Your task to perform on an android device: Go to network settings Image 0: 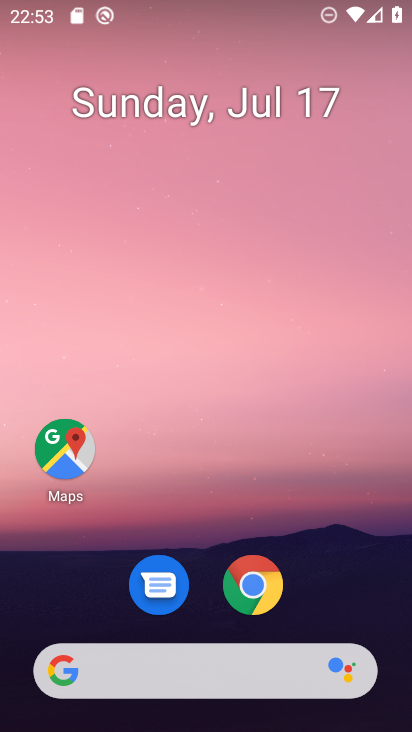
Step 0: press home button
Your task to perform on an android device: Go to network settings Image 1: 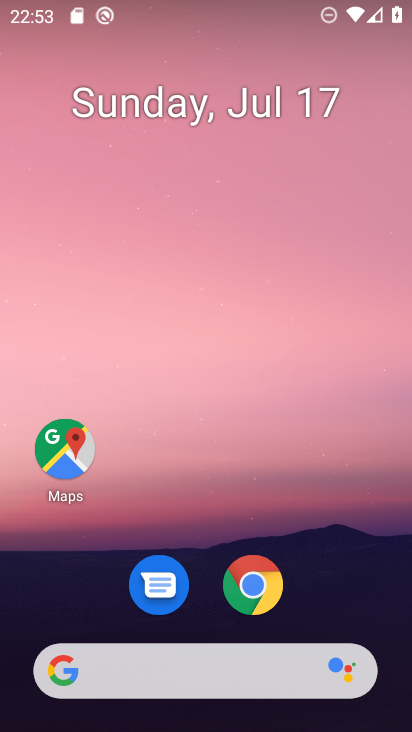
Step 1: drag from (206, 688) to (323, 174)
Your task to perform on an android device: Go to network settings Image 2: 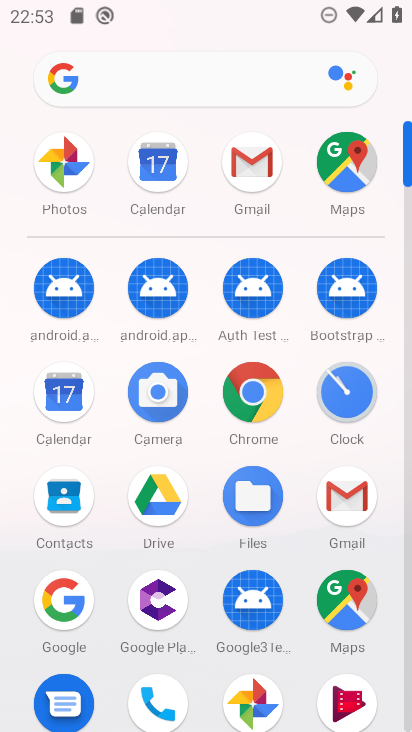
Step 2: drag from (203, 622) to (320, 215)
Your task to perform on an android device: Go to network settings Image 3: 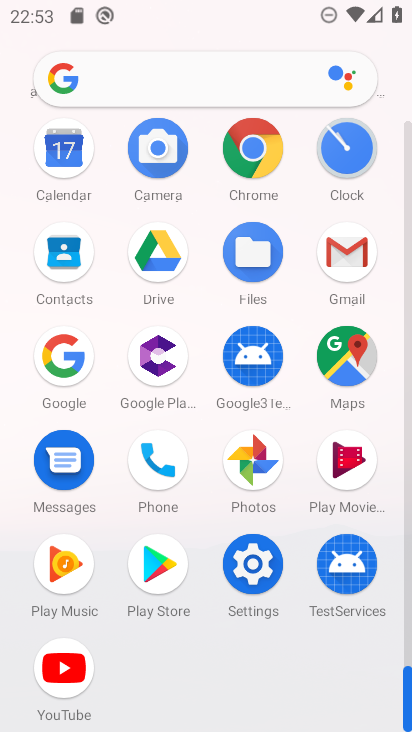
Step 3: click (247, 563)
Your task to perform on an android device: Go to network settings Image 4: 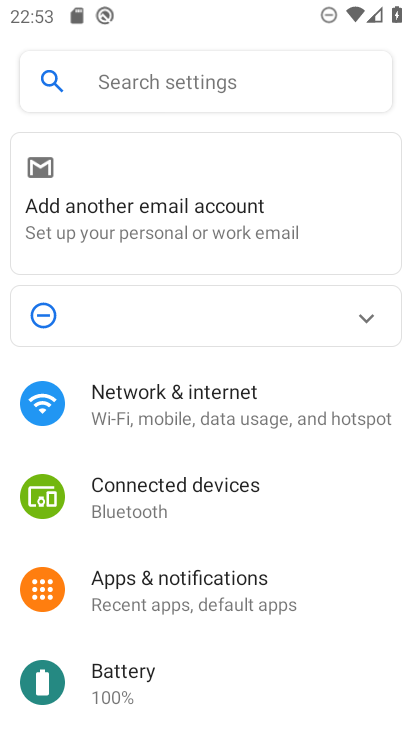
Step 4: click (217, 404)
Your task to perform on an android device: Go to network settings Image 5: 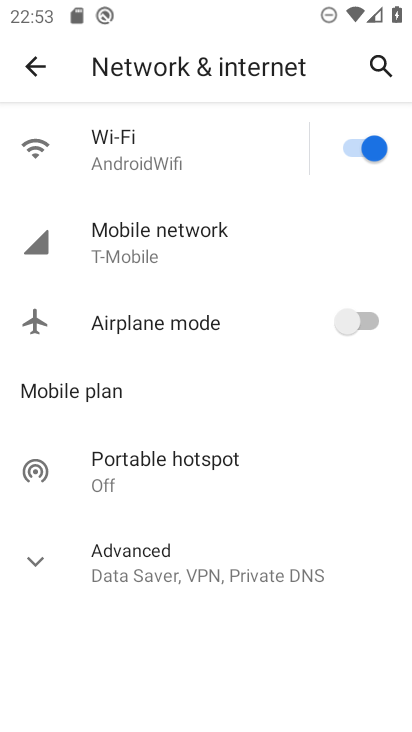
Step 5: click (172, 235)
Your task to perform on an android device: Go to network settings Image 6: 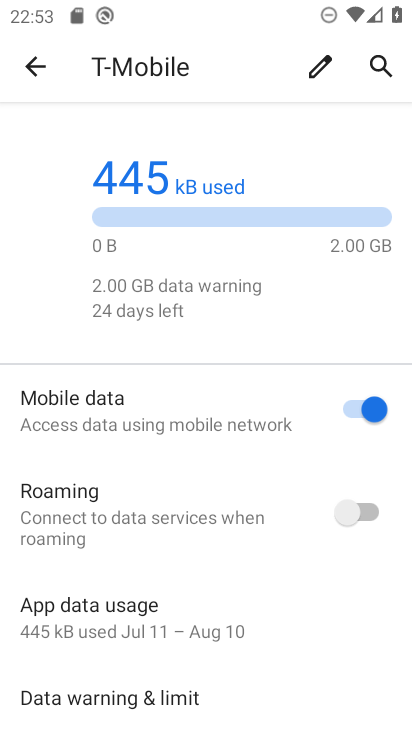
Step 6: task complete